Your task to perform on an android device: open chrome privacy settings Image 0: 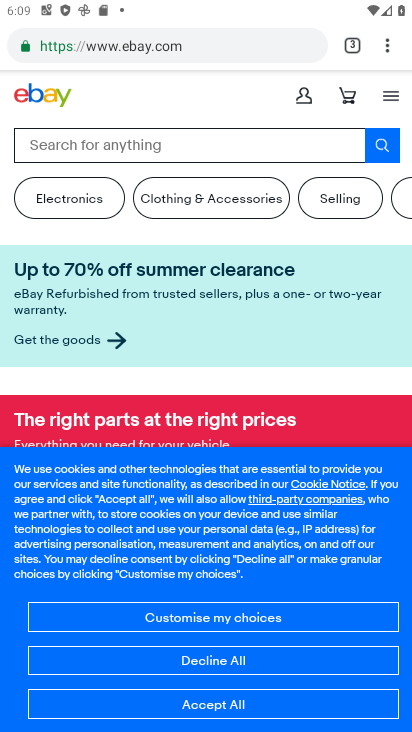
Step 0: press home button
Your task to perform on an android device: open chrome privacy settings Image 1: 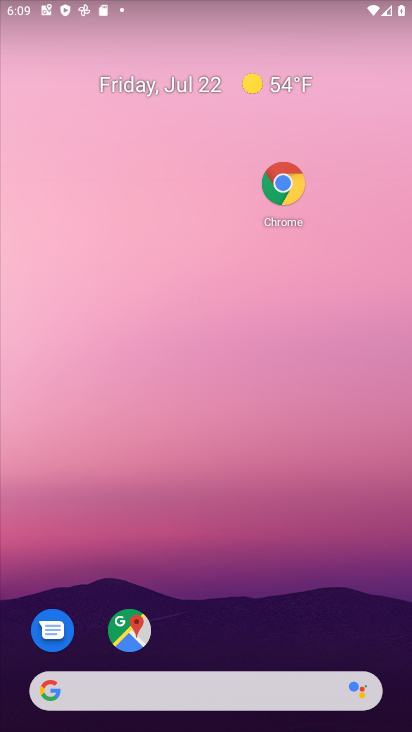
Step 1: click (217, 697)
Your task to perform on an android device: open chrome privacy settings Image 2: 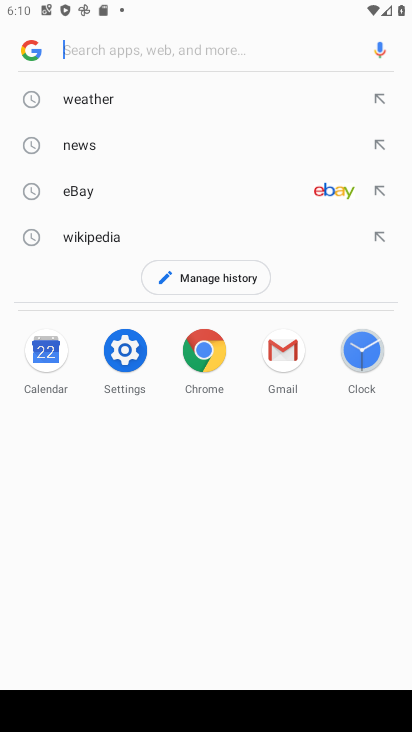
Step 2: click (88, 99)
Your task to perform on an android device: open chrome privacy settings Image 3: 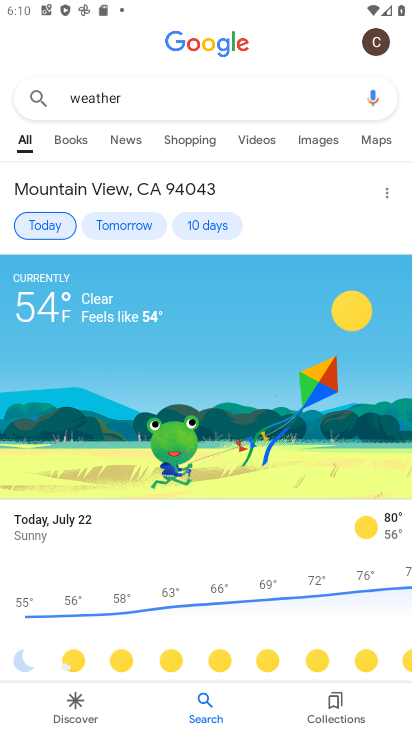
Step 3: press back button
Your task to perform on an android device: open chrome privacy settings Image 4: 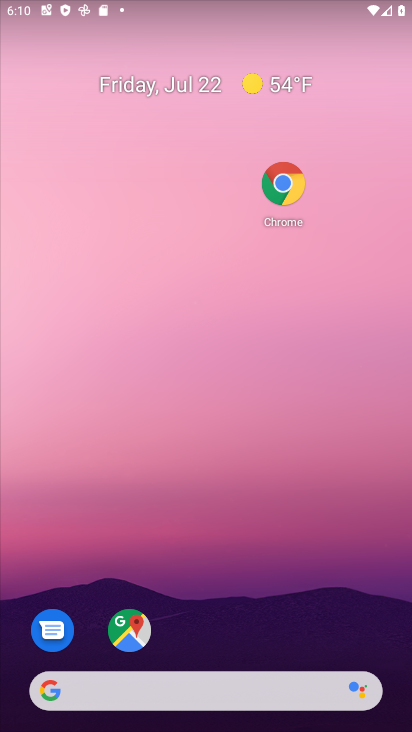
Step 4: click (288, 190)
Your task to perform on an android device: open chrome privacy settings Image 5: 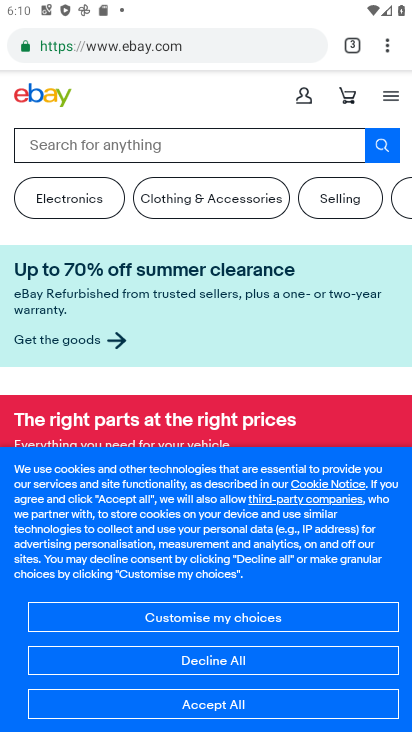
Step 5: click (390, 49)
Your task to perform on an android device: open chrome privacy settings Image 6: 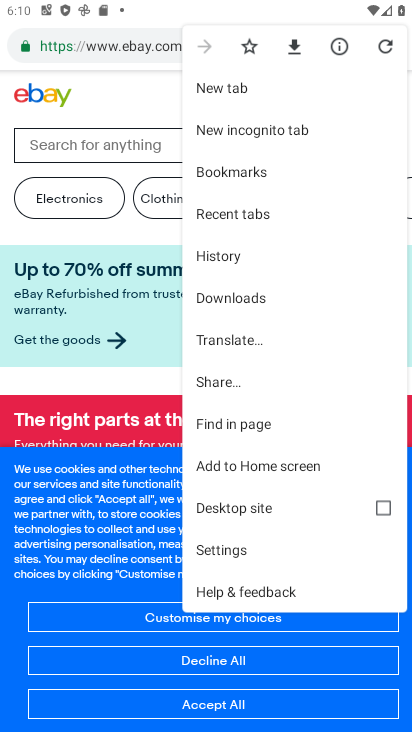
Step 6: click (231, 554)
Your task to perform on an android device: open chrome privacy settings Image 7: 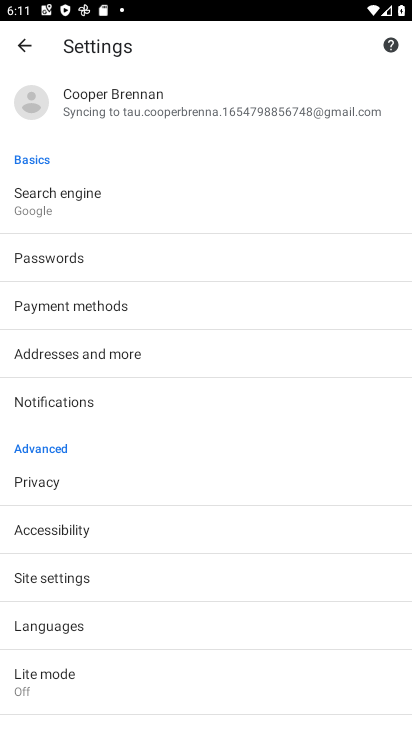
Step 7: click (47, 476)
Your task to perform on an android device: open chrome privacy settings Image 8: 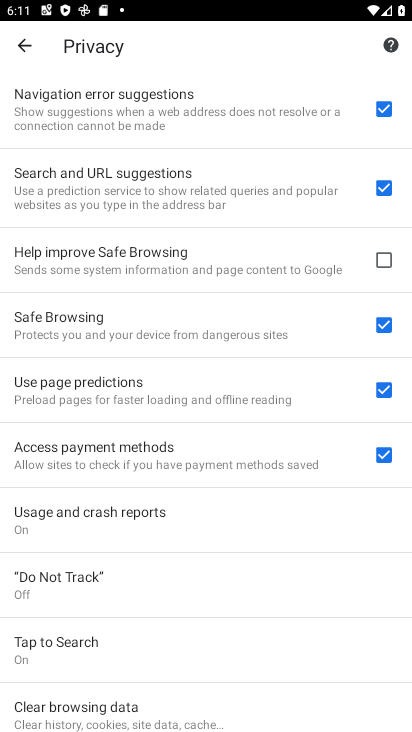
Step 8: task complete